Your task to perform on an android device: Go to Maps Image 0: 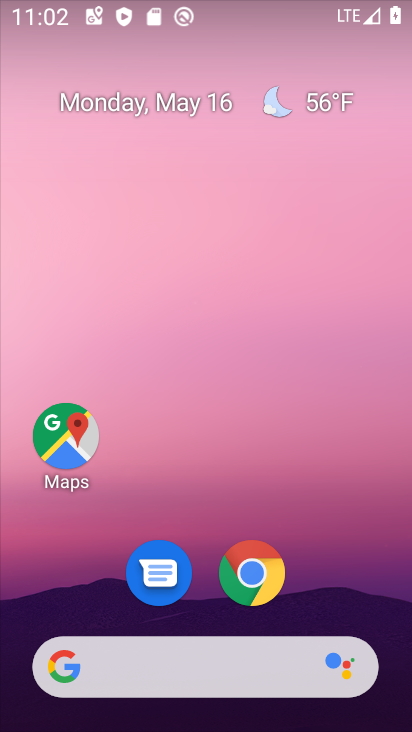
Step 0: click (57, 447)
Your task to perform on an android device: Go to Maps Image 1: 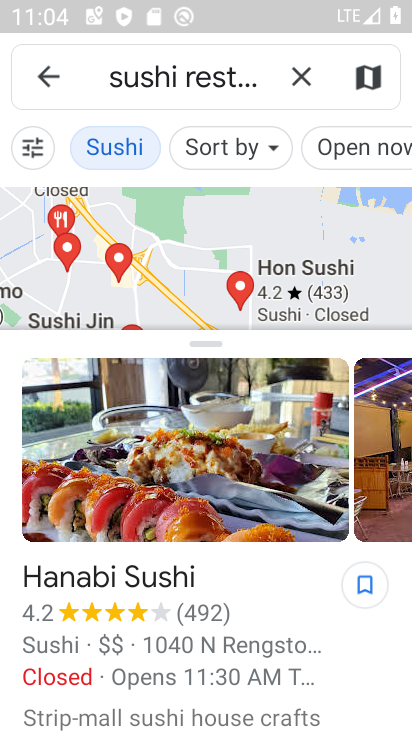
Step 1: press home button
Your task to perform on an android device: Go to Maps Image 2: 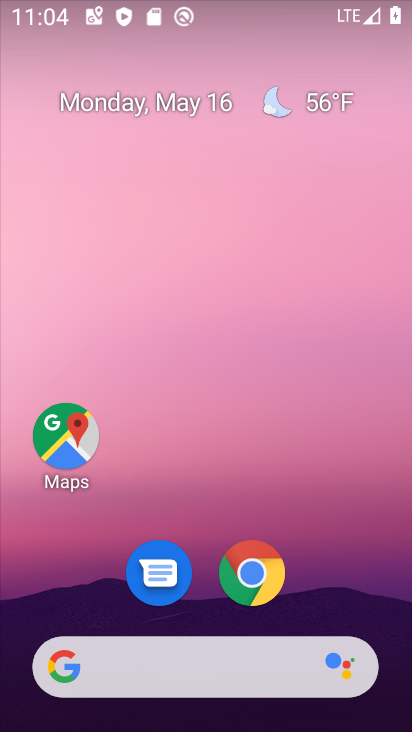
Step 2: click (56, 427)
Your task to perform on an android device: Go to Maps Image 3: 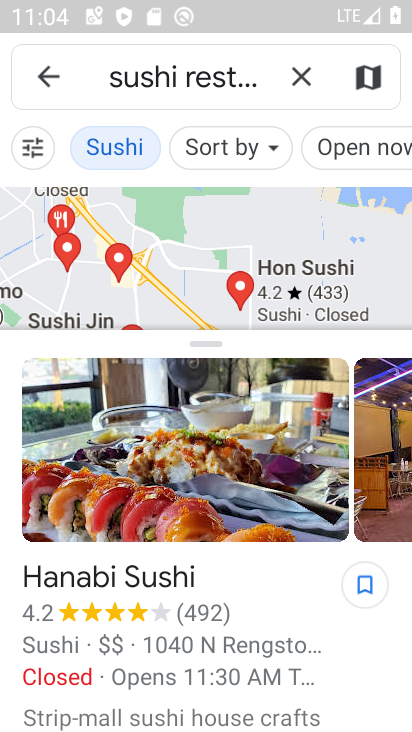
Step 3: press home button
Your task to perform on an android device: Go to Maps Image 4: 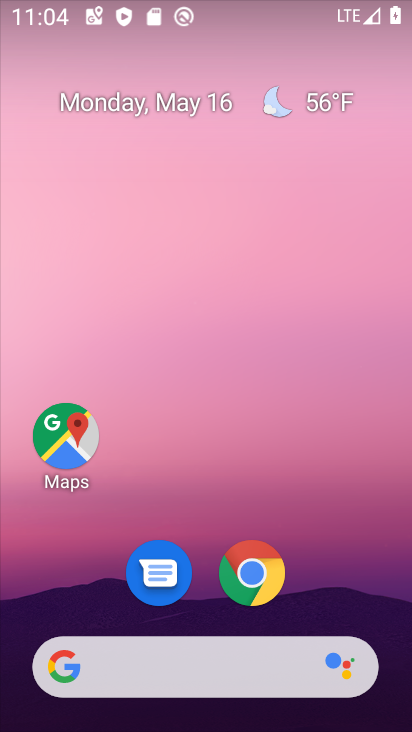
Step 4: click (75, 435)
Your task to perform on an android device: Go to Maps Image 5: 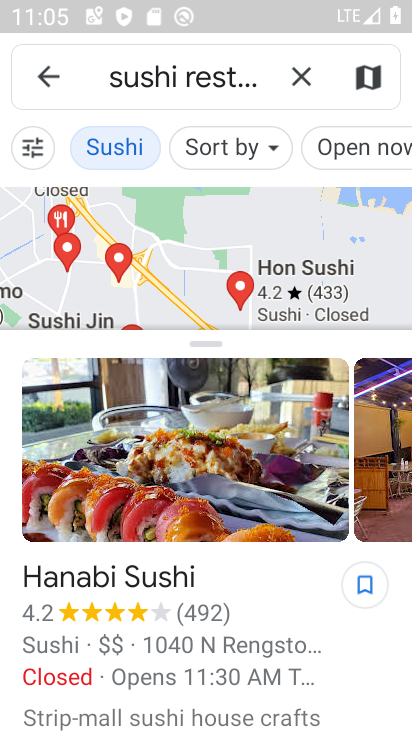
Step 5: task complete